Your task to perform on an android device: show emergency info Image 0: 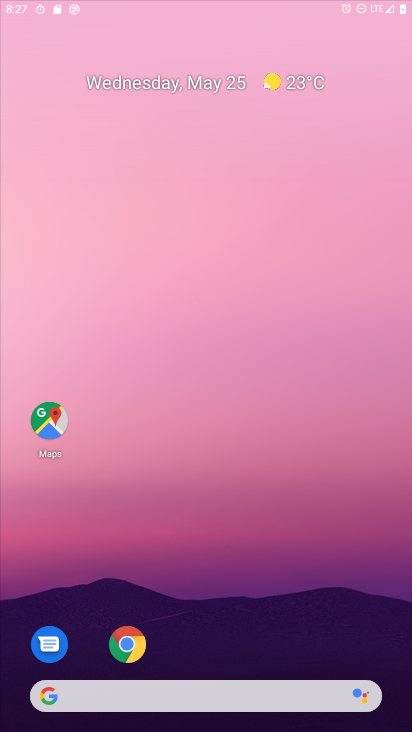
Step 0: drag from (365, 612) to (291, 22)
Your task to perform on an android device: show emergency info Image 1: 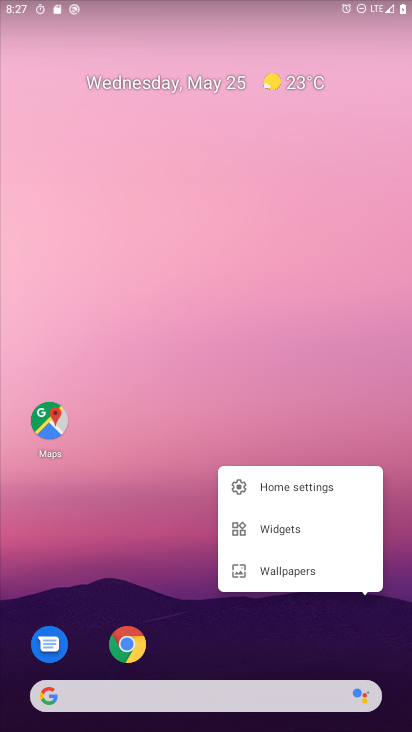
Step 1: click (235, 302)
Your task to perform on an android device: show emergency info Image 2: 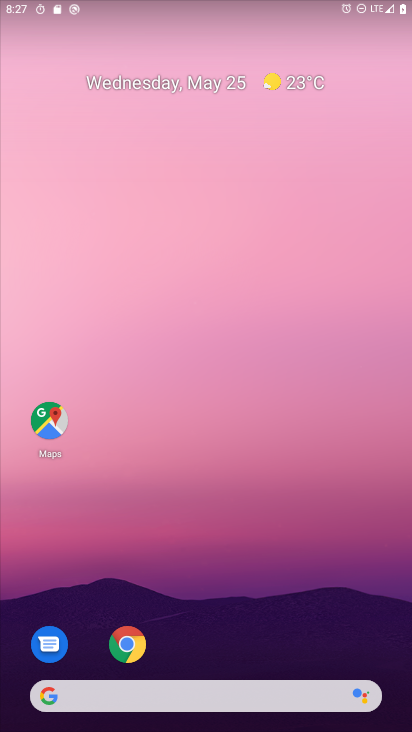
Step 2: drag from (302, 638) to (269, 28)
Your task to perform on an android device: show emergency info Image 3: 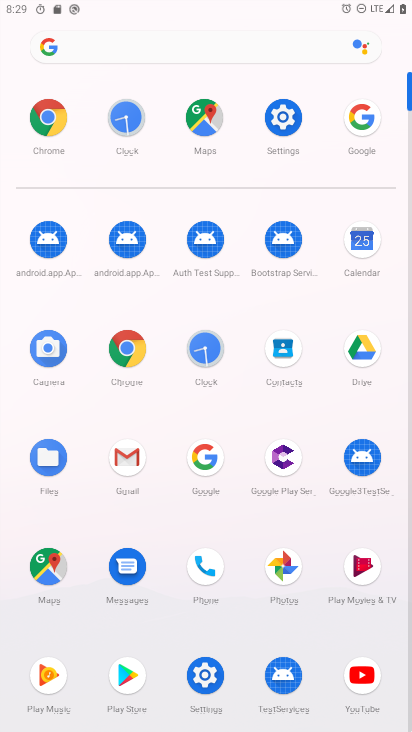
Step 3: click (287, 141)
Your task to perform on an android device: show emergency info Image 4: 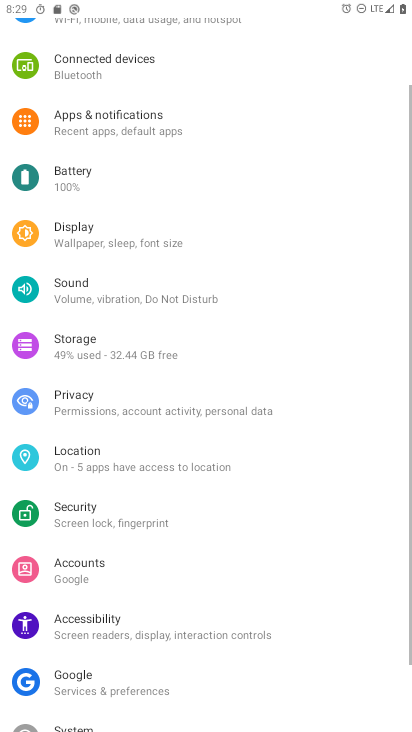
Step 4: drag from (163, 699) to (288, 99)
Your task to perform on an android device: show emergency info Image 5: 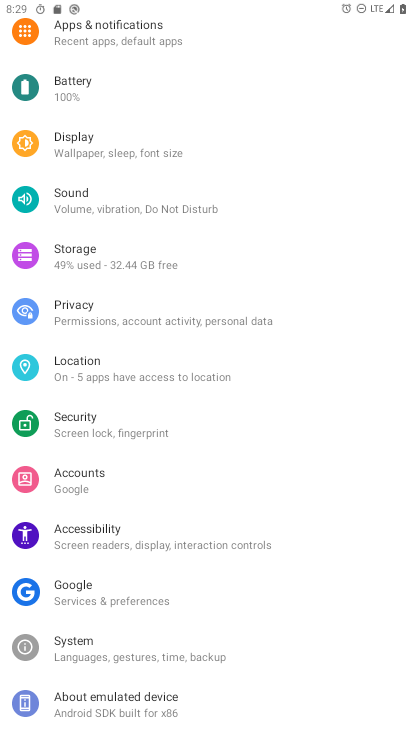
Step 5: click (158, 698)
Your task to perform on an android device: show emergency info Image 6: 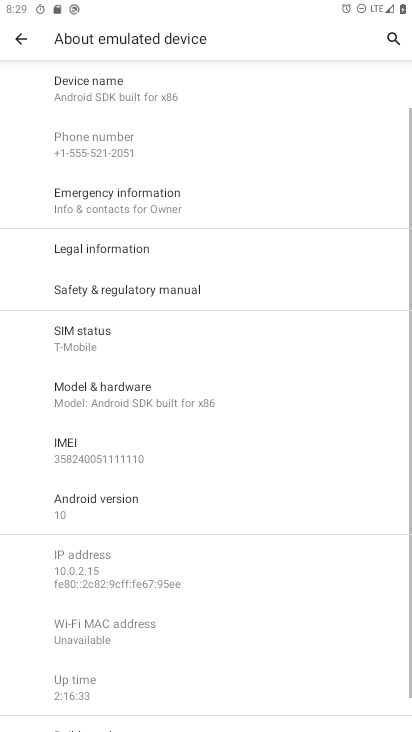
Step 6: click (167, 220)
Your task to perform on an android device: show emergency info Image 7: 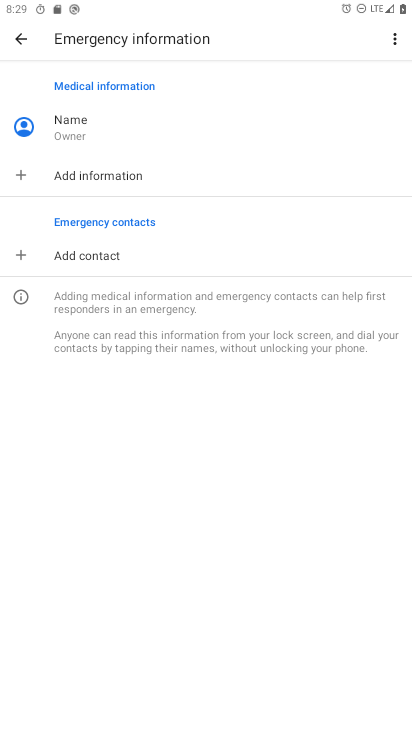
Step 7: task complete